Your task to perform on an android device: see tabs open on other devices in the chrome app Image 0: 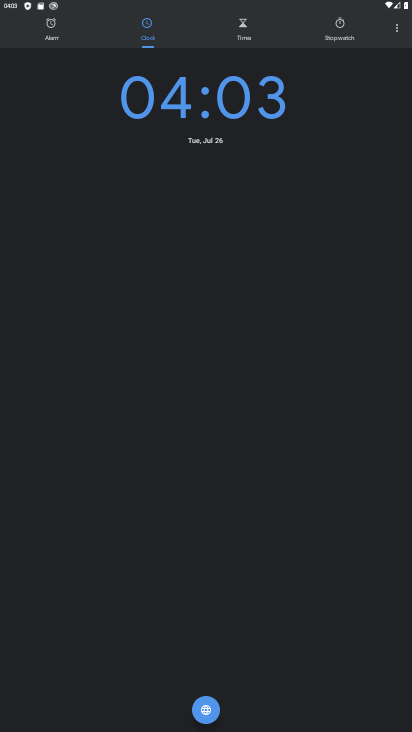
Step 0: press home button
Your task to perform on an android device: see tabs open on other devices in the chrome app Image 1: 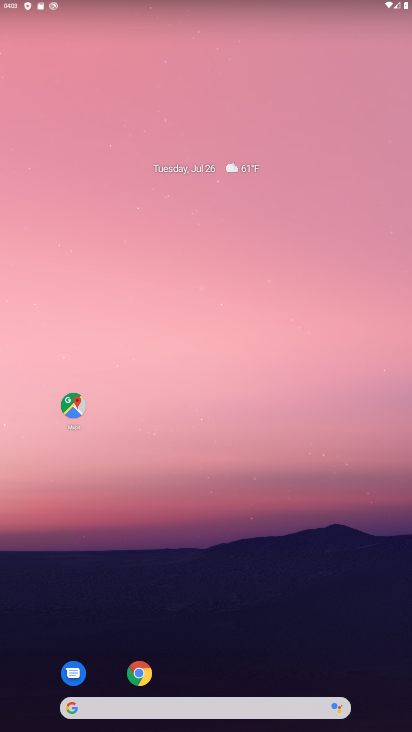
Step 1: click (141, 670)
Your task to perform on an android device: see tabs open on other devices in the chrome app Image 2: 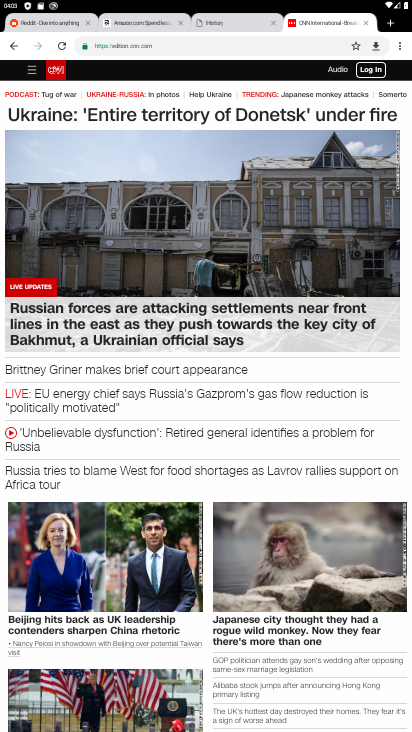
Step 2: click (402, 40)
Your task to perform on an android device: see tabs open on other devices in the chrome app Image 3: 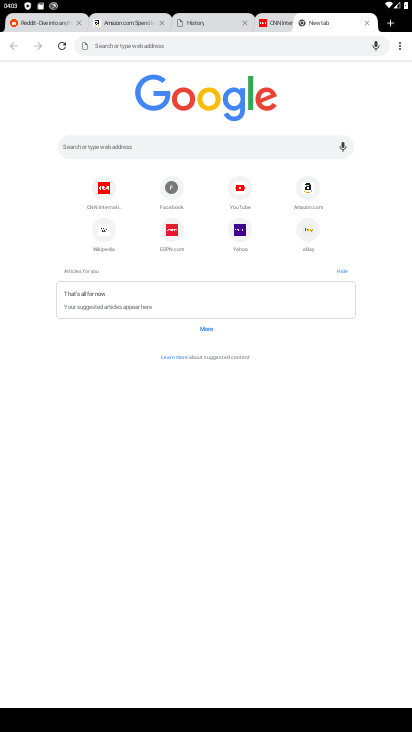
Step 3: click (399, 45)
Your task to perform on an android device: see tabs open on other devices in the chrome app Image 4: 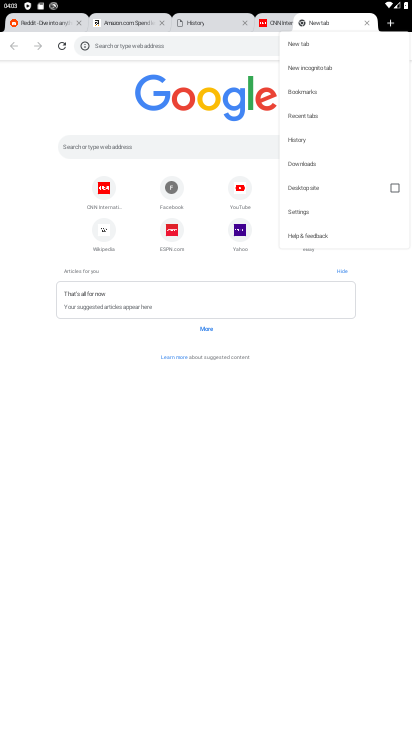
Step 4: click (319, 113)
Your task to perform on an android device: see tabs open on other devices in the chrome app Image 5: 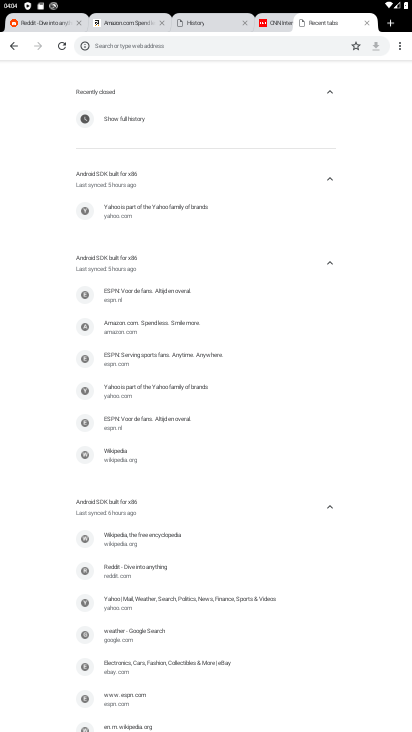
Step 5: task complete